Your task to perform on an android device: open app "Reddit" Image 0: 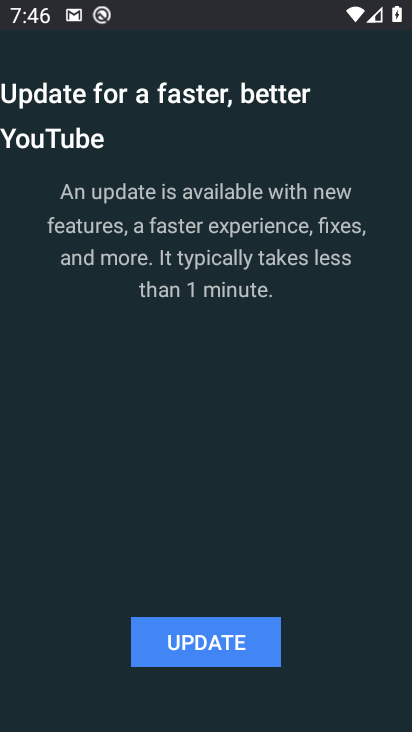
Step 0: press home button
Your task to perform on an android device: open app "Reddit" Image 1: 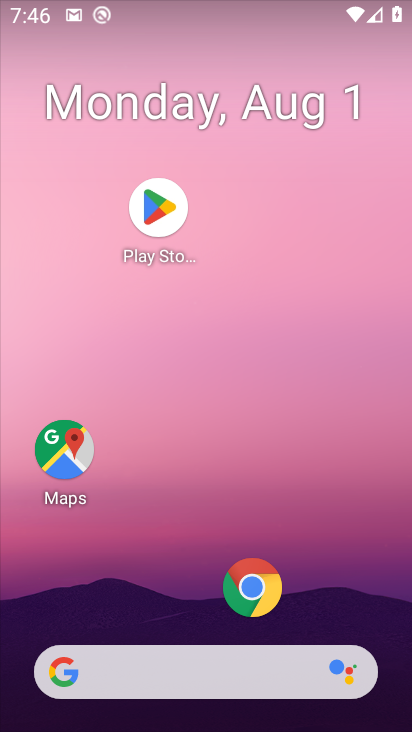
Step 1: drag from (177, 642) to (192, 235)
Your task to perform on an android device: open app "Reddit" Image 2: 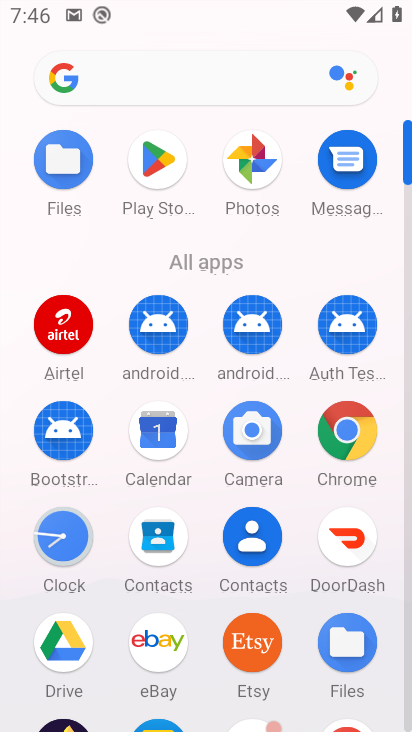
Step 2: click (210, 89)
Your task to perform on an android device: open app "Reddit" Image 3: 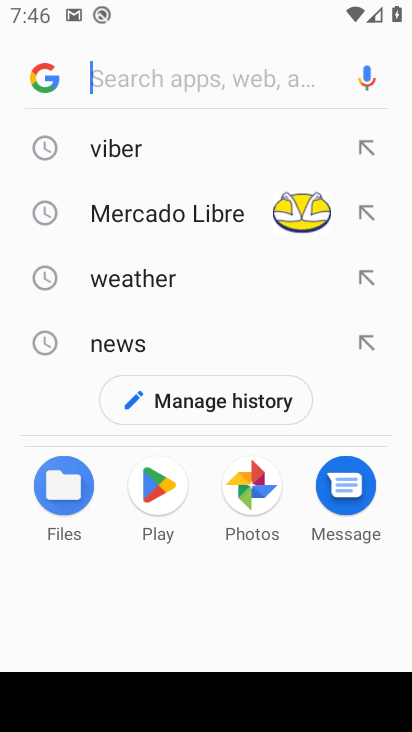
Step 3: type "reddit"
Your task to perform on an android device: open app "Reddit" Image 4: 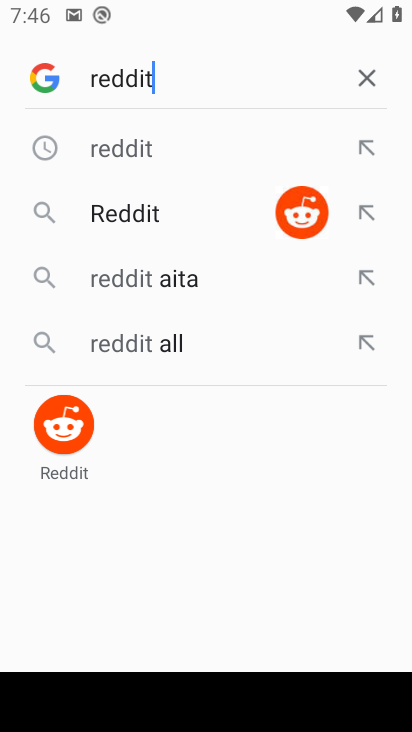
Step 4: click (293, 142)
Your task to perform on an android device: open app "Reddit" Image 5: 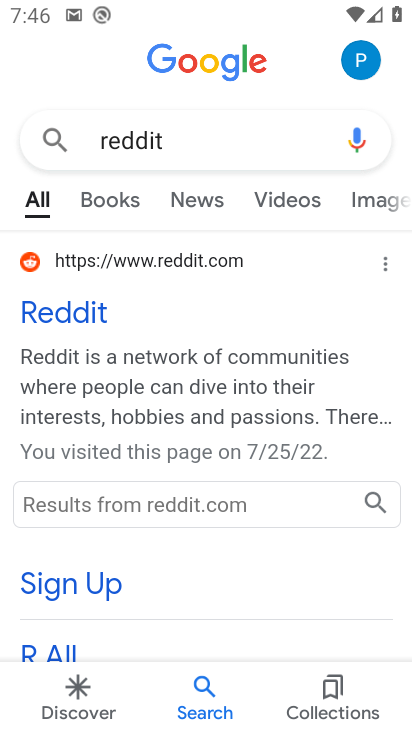
Step 5: drag from (235, 612) to (265, 356)
Your task to perform on an android device: open app "Reddit" Image 6: 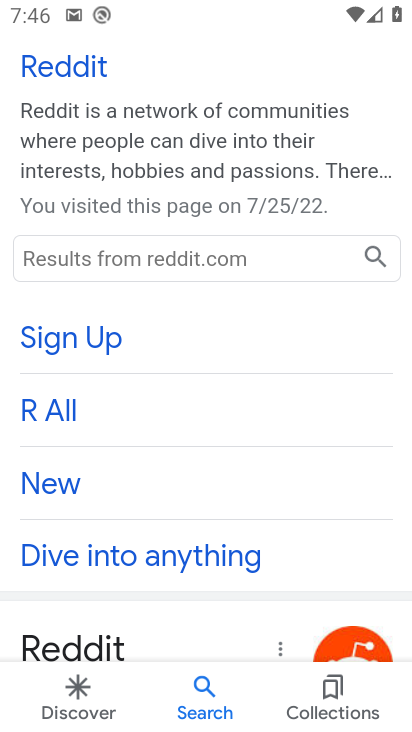
Step 6: drag from (246, 631) to (265, 321)
Your task to perform on an android device: open app "Reddit" Image 7: 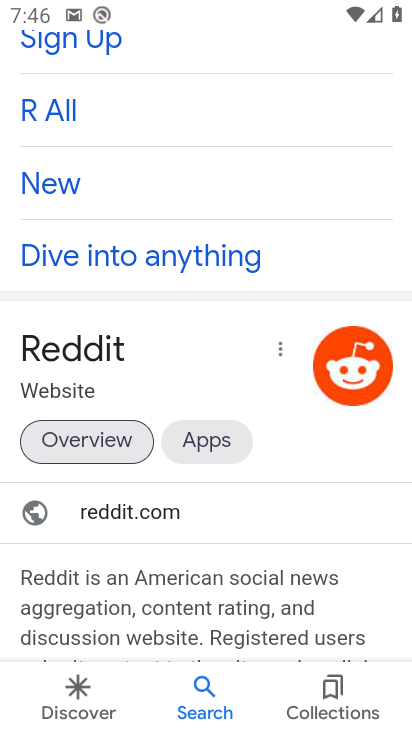
Step 7: drag from (258, 558) to (317, 255)
Your task to perform on an android device: open app "Reddit" Image 8: 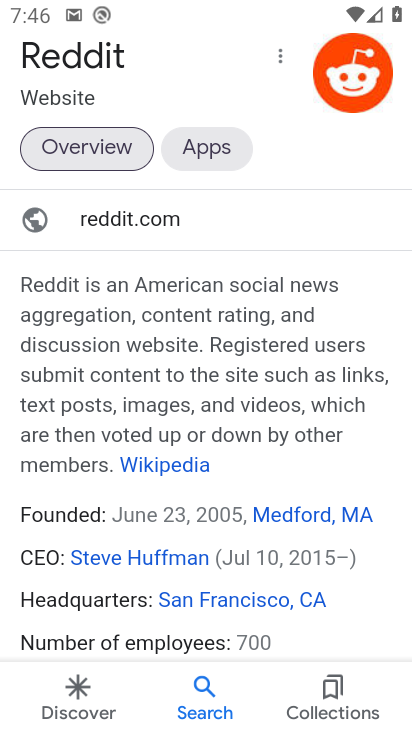
Step 8: drag from (307, 627) to (344, 304)
Your task to perform on an android device: open app "Reddit" Image 9: 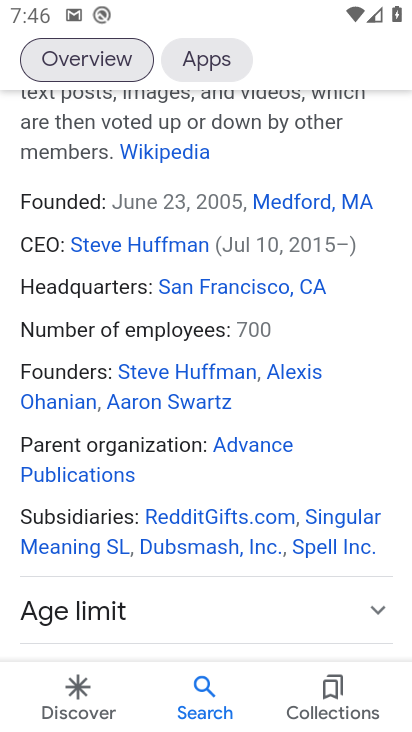
Step 9: drag from (297, 608) to (371, 141)
Your task to perform on an android device: open app "Reddit" Image 10: 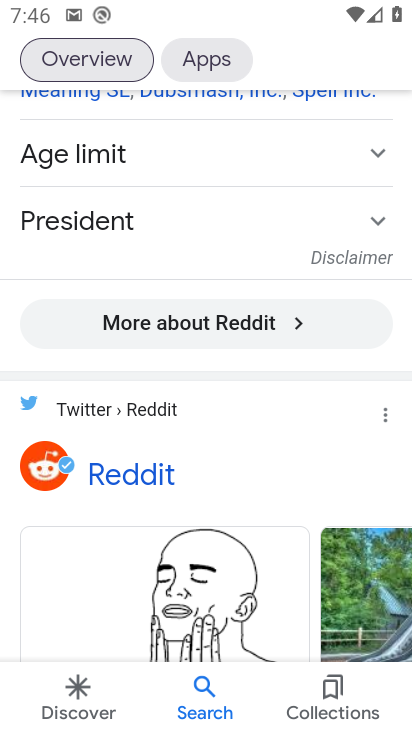
Step 10: drag from (292, 518) to (340, 113)
Your task to perform on an android device: open app "Reddit" Image 11: 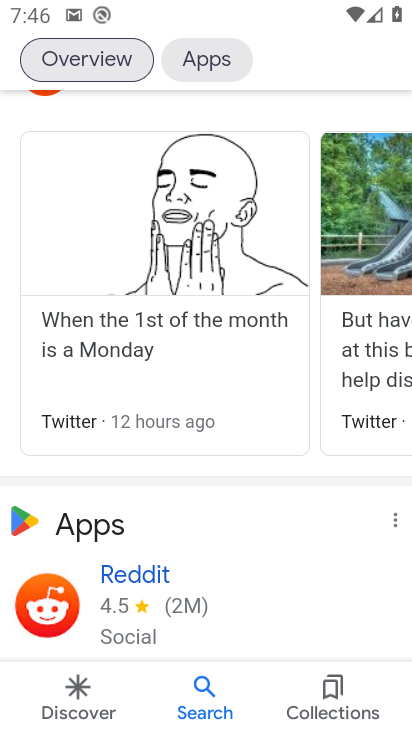
Step 11: drag from (246, 587) to (253, 456)
Your task to perform on an android device: open app "Reddit" Image 12: 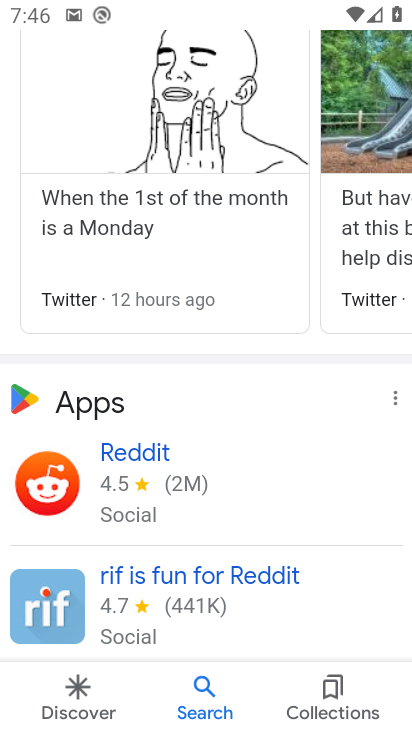
Step 12: click (253, 456)
Your task to perform on an android device: open app "Reddit" Image 13: 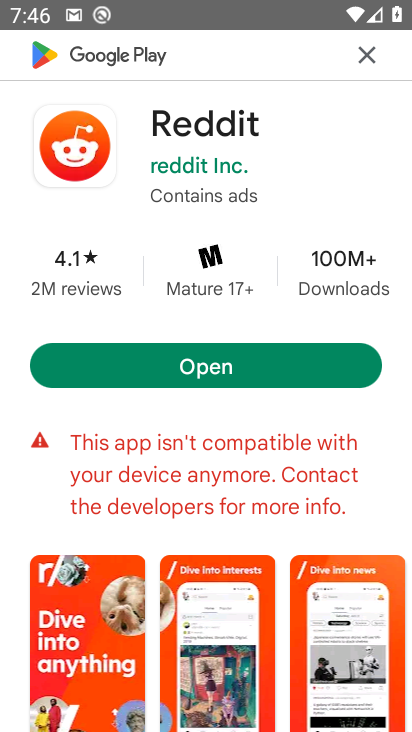
Step 13: task complete